Your task to perform on an android device: Show me the alarms in the clock app Image 0: 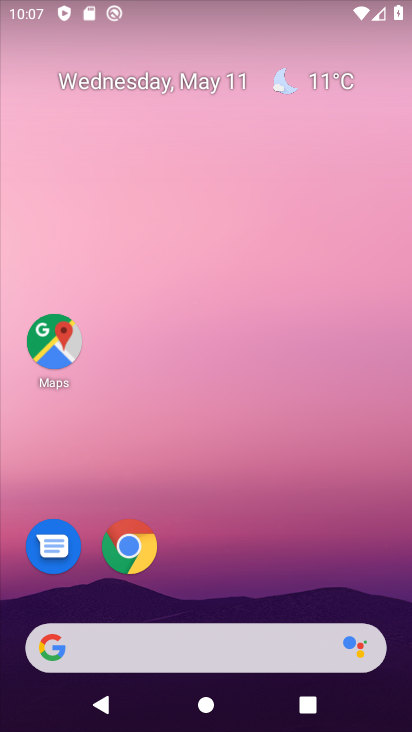
Step 0: drag from (228, 554) to (233, 47)
Your task to perform on an android device: Show me the alarms in the clock app Image 1: 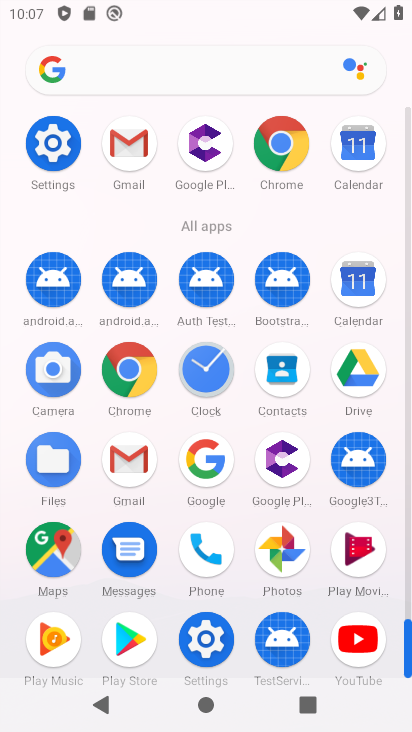
Step 1: click (215, 361)
Your task to perform on an android device: Show me the alarms in the clock app Image 2: 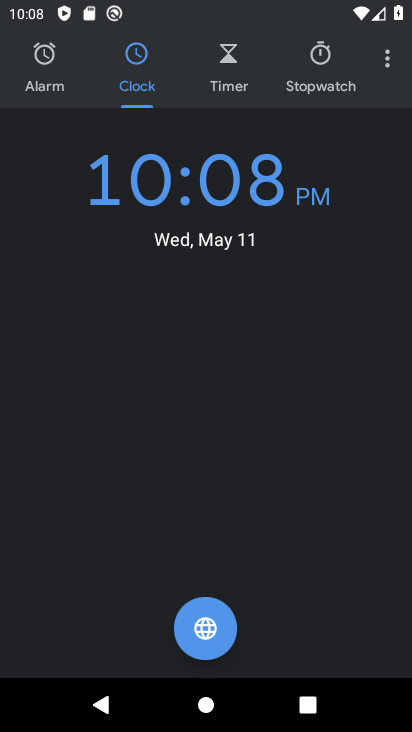
Step 2: click (384, 60)
Your task to perform on an android device: Show me the alarms in the clock app Image 3: 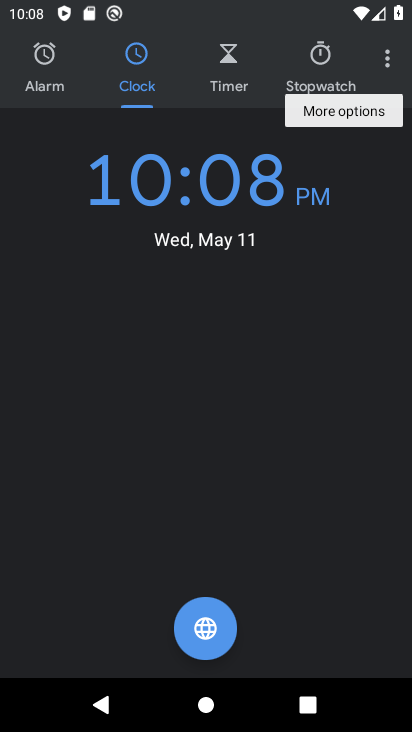
Step 3: click (384, 60)
Your task to perform on an android device: Show me the alarms in the clock app Image 4: 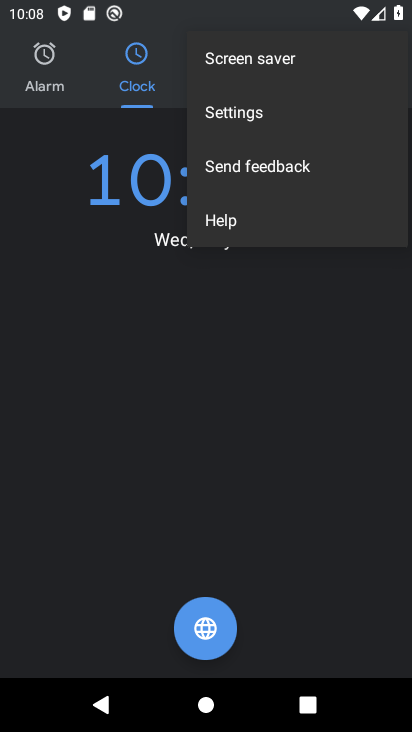
Step 4: click (56, 61)
Your task to perform on an android device: Show me the alarms in the clock app Image 5: 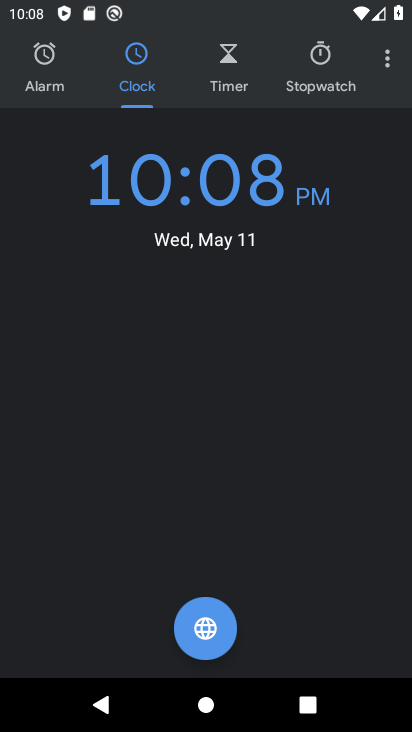
Step 5: click (41, 57)
Your task to perform on an android device: Show me the alarms in the clock app Image 6: 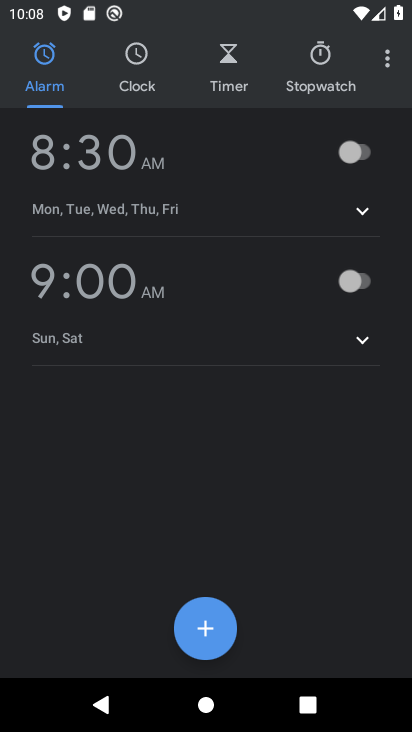
Step 6: task complete